Your task to perform on an android device: Open Google Maps and go to "Timeline" Image 0: 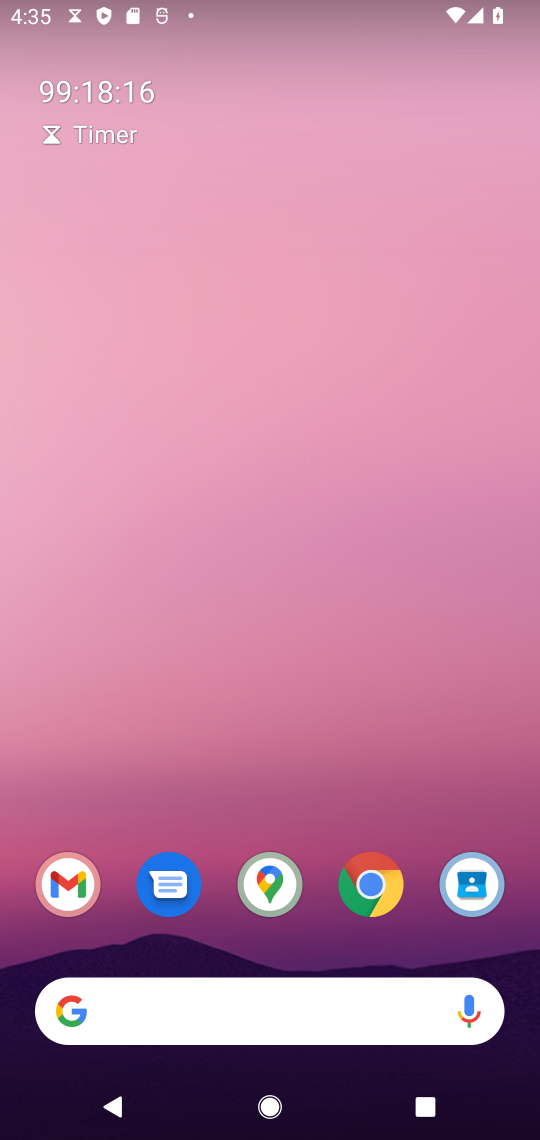
Step 0: drag from (221, 942) to (395, 66)
Your task to perform on an android device: Open Google Maps and go to "Timeline" Image 1: 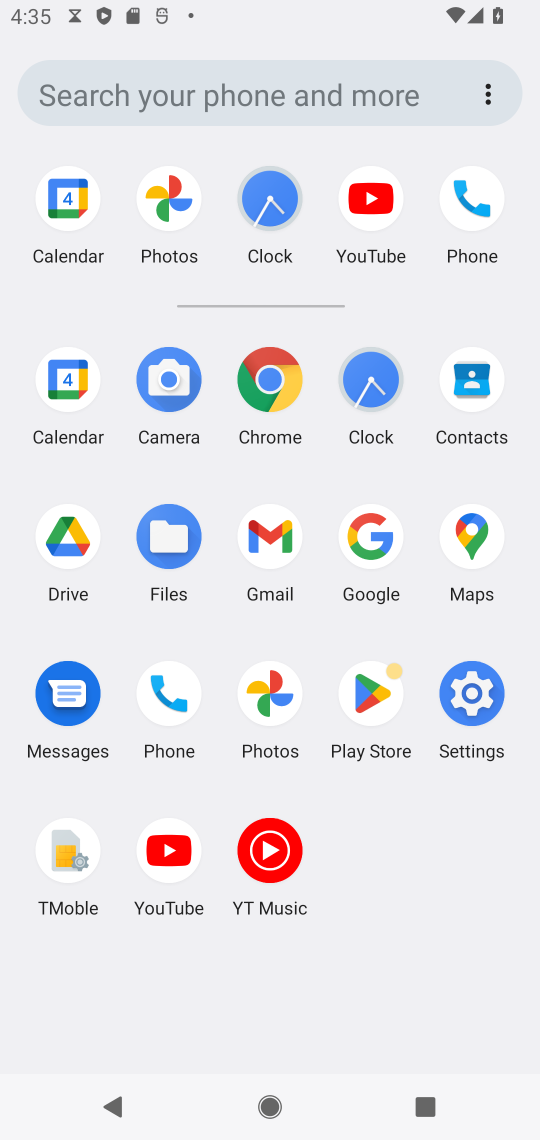
Step 1: click (457, 522)
Your task to perform on an android device: Open Google Maps and go to "Timeline" Image 2: 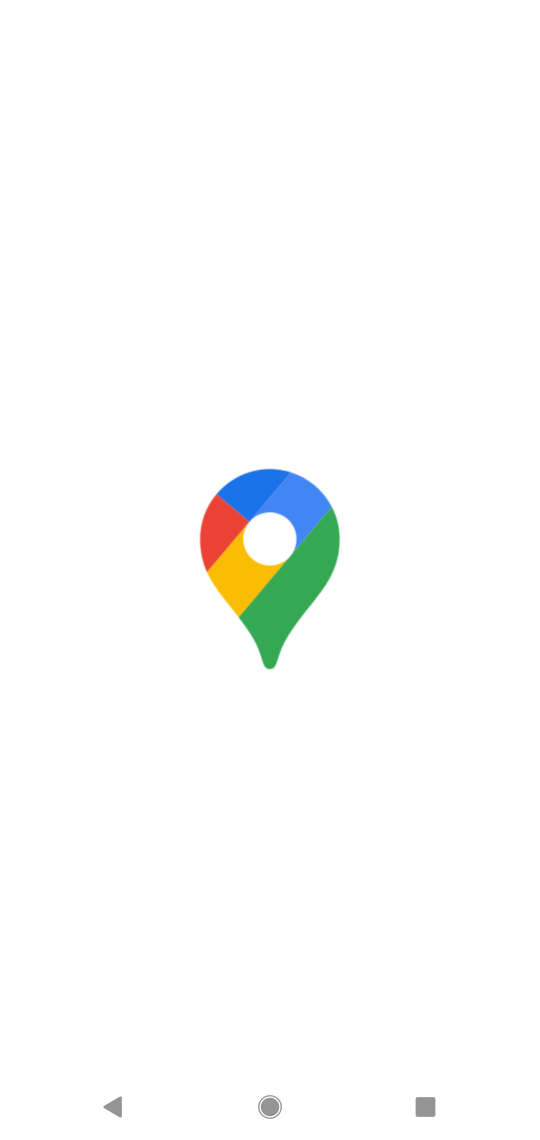
Step 2: task complete